Your task to perform on an android device: see sites visited before in the chrome app Image 0: 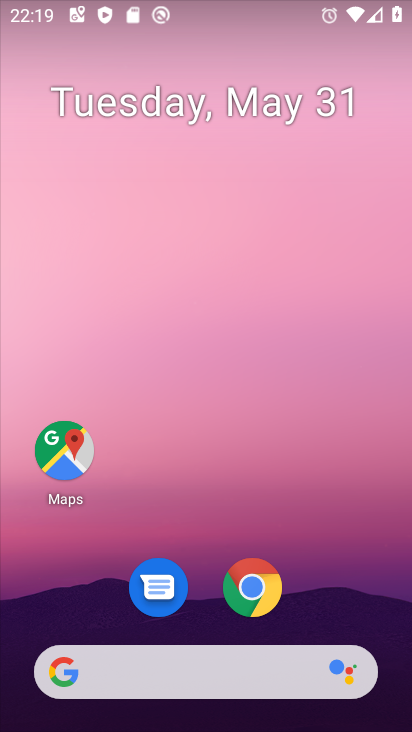
Step 0: drag from (368, 626) to (365, 245)
Your task to perform on an android device: see sites visited before in the chrome app Image 1: 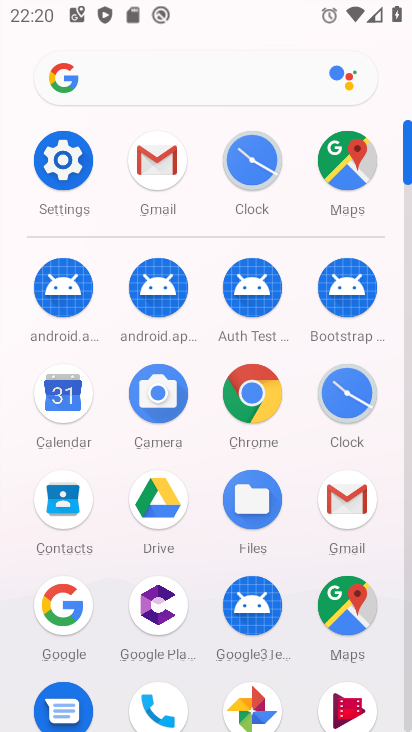
Step 1: click (251, 402)
Your task to perform on an android device: see sites visited before in the chrome app Image 2: 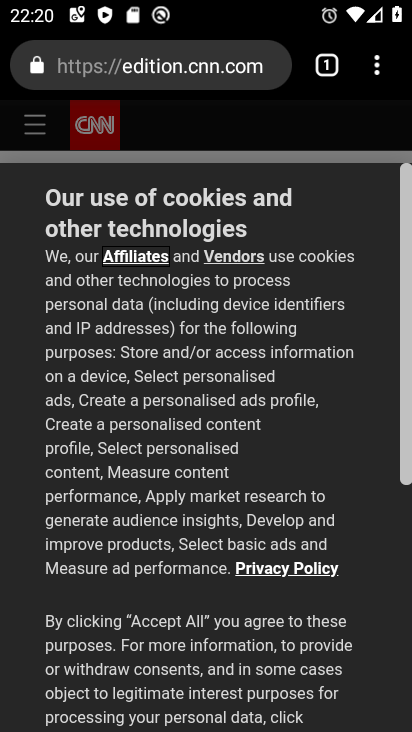
Step 2: click (380, 79)
Your task to perform on an android device: see sites visited before in the chrome app Image 3: 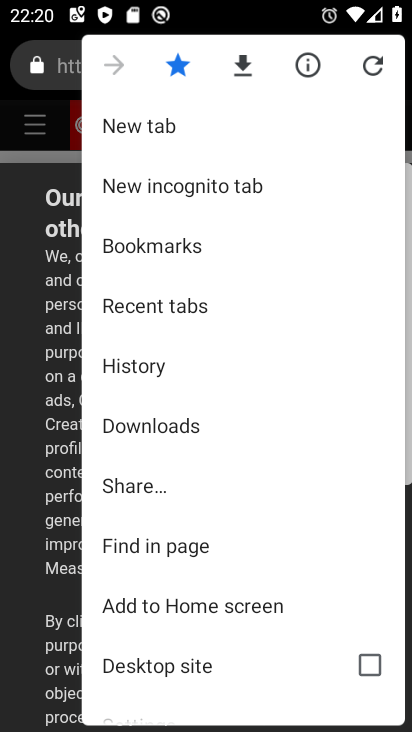
Step 3: drag from (268, 473) to (285, 345)
Your task to perform on an android device: see sites visited before in the chrome app Image 4: 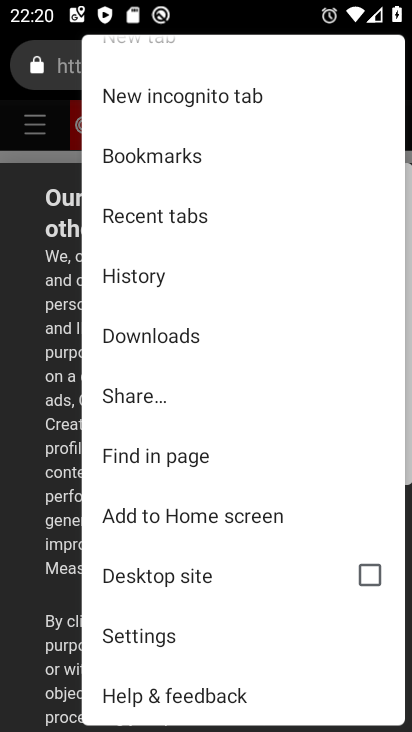
Step 4: drag from (289, 404) to (285, 269)
Your task to perform on an android device: see sites visited before in the chrome app Image 5: 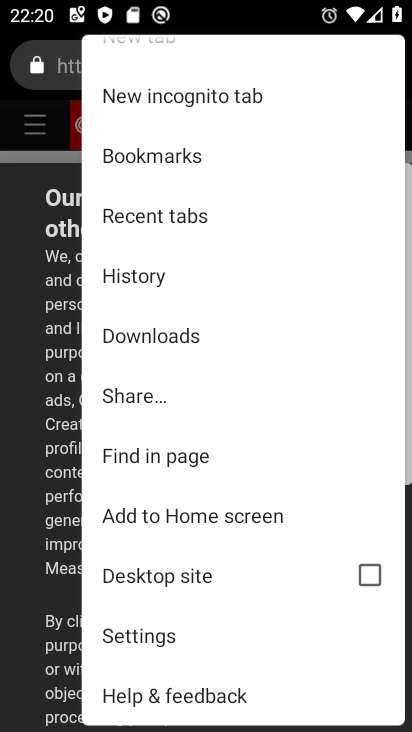
Step 5: click (179, 280)
Your task to perform on an android device: see sites visited before in the chrome app Image 6: 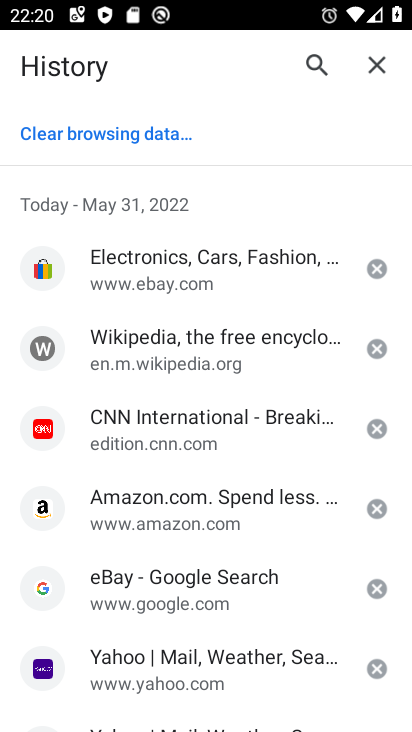
Step 6: task complete